Your task to perform on an android device: delete browsing data in the chrome app Image 0: 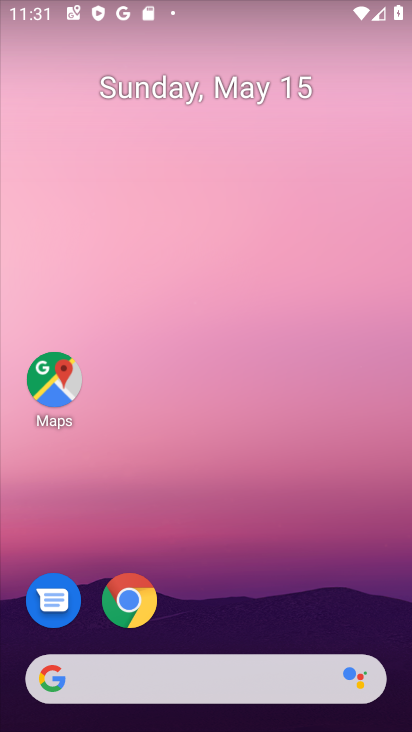
Step 0: drag from (183, 681) to (143, 26)
Your task to perform on an android device: delete browsing data in the chrome app Image 1: 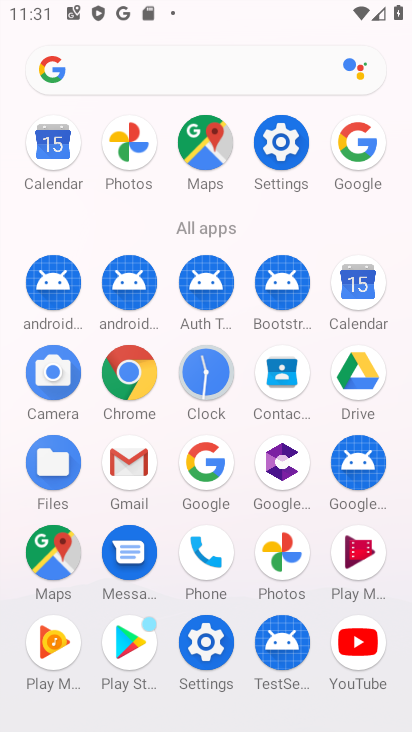
Step 1: click (130, 368)
Your task to perform on an android device: delete browsing data in the chrome app Image 2: 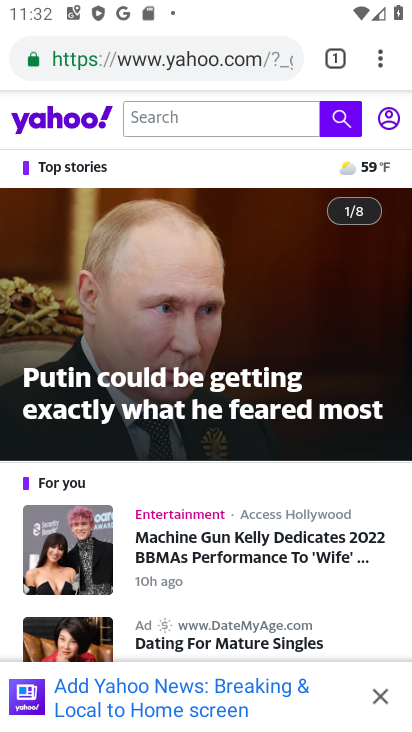
Step 2: click (378, 57)
Your task to perform on an android device: delete browsing data in the chrome app Image 3: 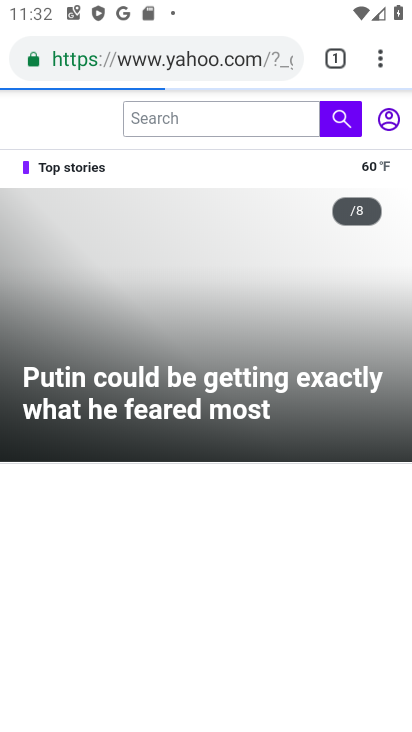
Step 3: drag from (378, 63) to (160, 339)
Your task to perform on an android device: delete browsing data in the chrome app Image 4: 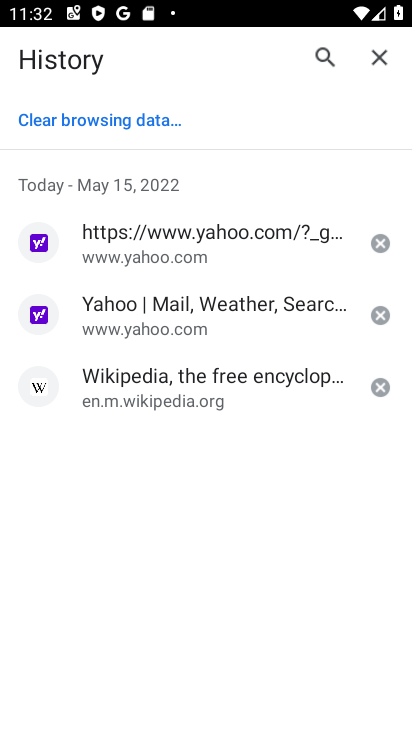
Step 4: click (83, 128)
Your task to perform on an android device: delete browsing data in the chrome app Image 5: 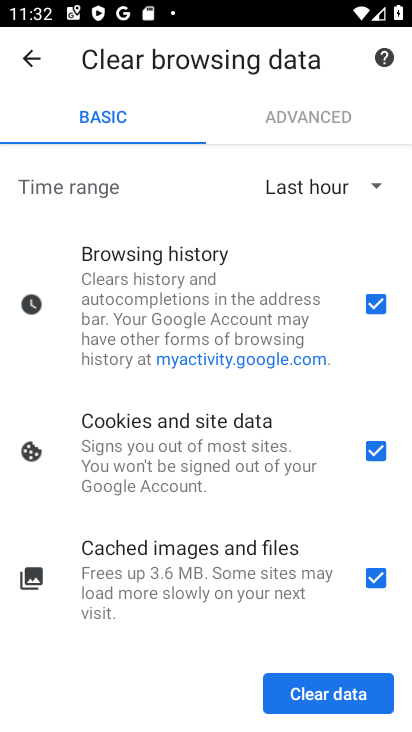
Step 5: click (288, 710)
Your task to perform on an android device: delete browsing data in the chrome app Image 6: 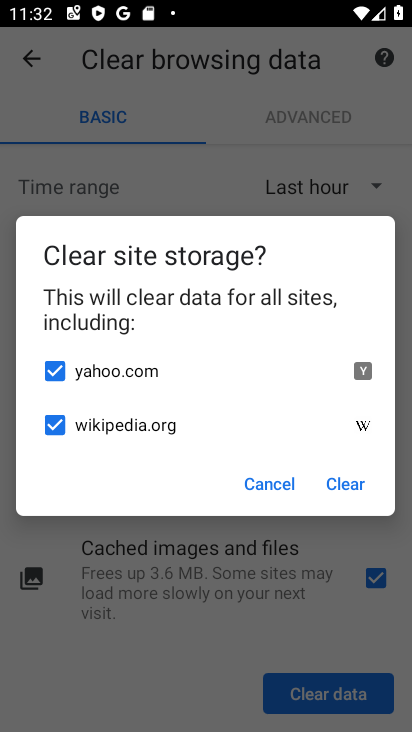
Step 6: click (342, 476)
Your task to perform on an android device: delete browsing data in the chrome app Image 7: 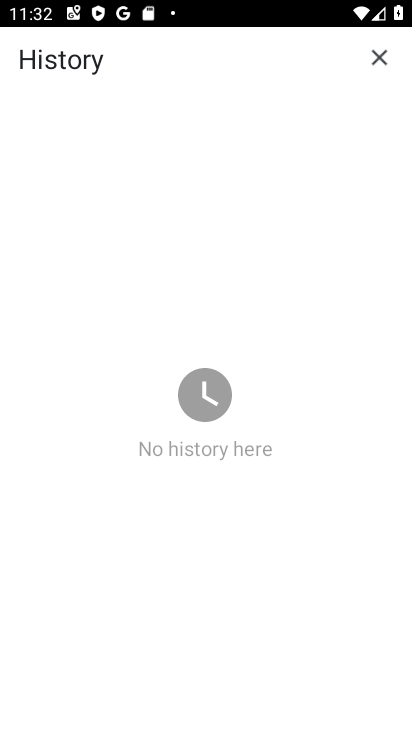
Step 7: task complete